Your task to perform on an android device: check data usage Image 0: 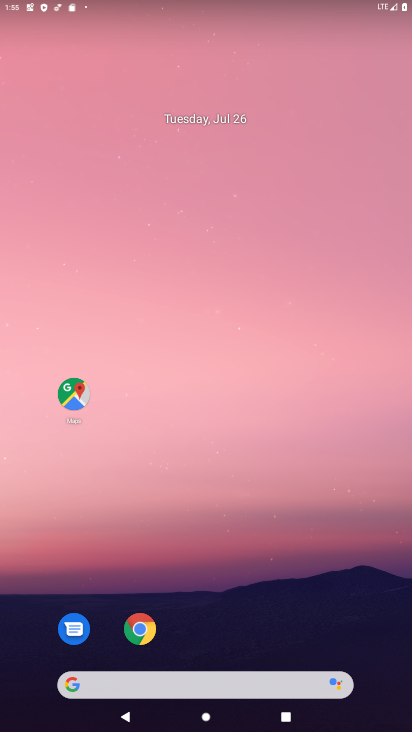
Step 0: press home button
Your task to perform on an android device: check data usage Image 1: 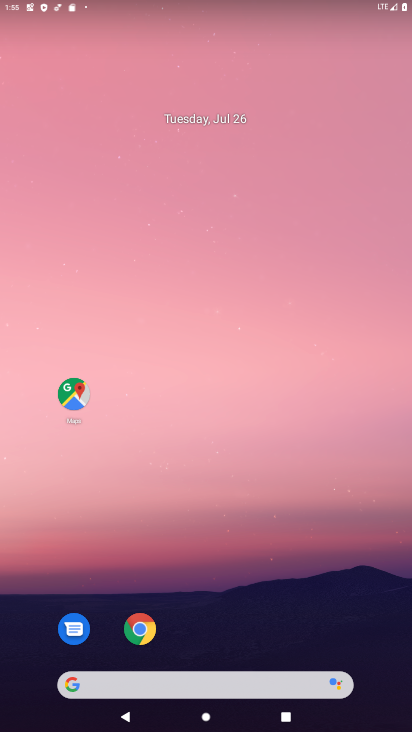
Step 1: drag from (354, 402) to (324, 87)
Your task to perform on an android device: check data usage Image 2: 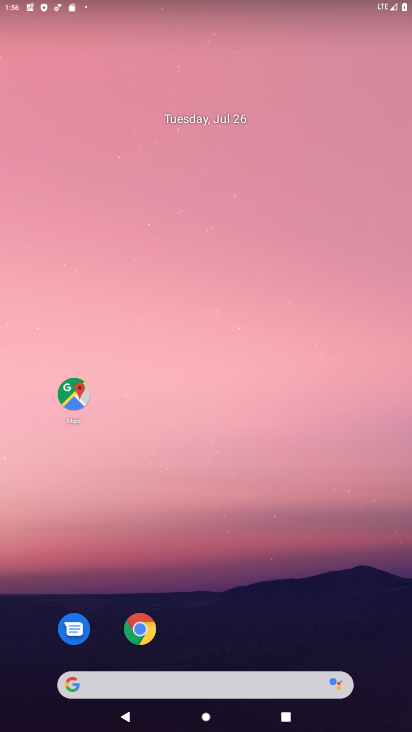
Step 2: drag from (370, 702) to (314, 88)
Your task to perform on an android device: check data usage Image 3: 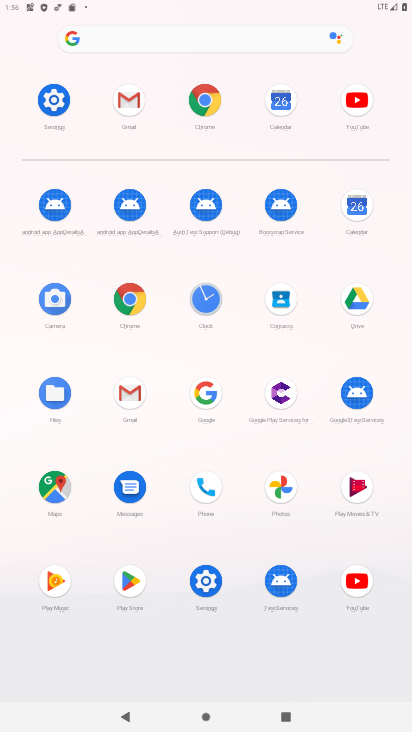
Step 3: click (66, 97)
Your task to perform on an android device: check data usage Image 4: 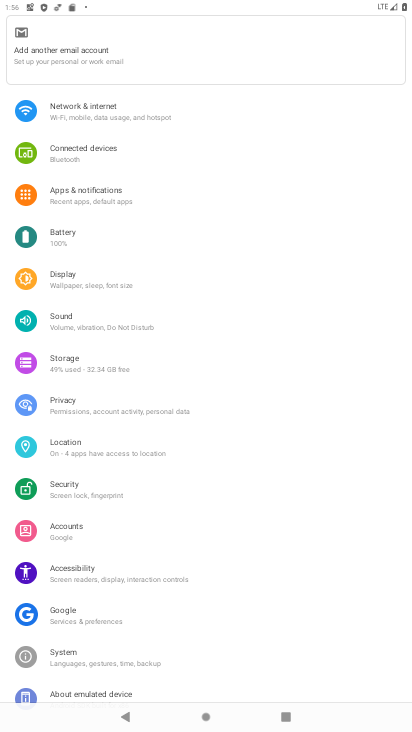
Step 4: click (83, 101)
Your task to perform on an android device: check data usage Image 5: 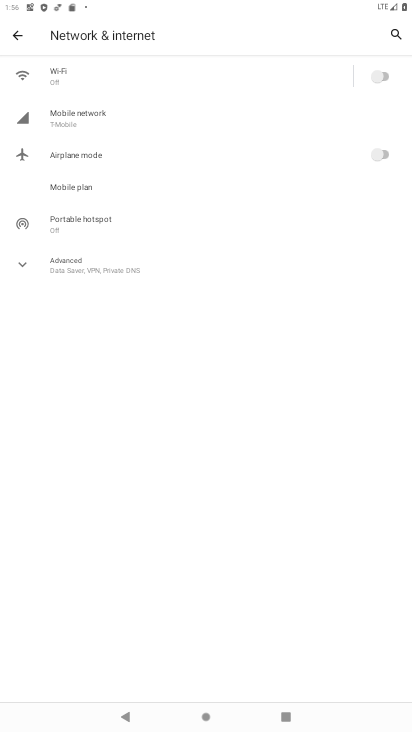
Step 5: click (65, 118)
Your task to perform on an android device: check data usage Image 6: 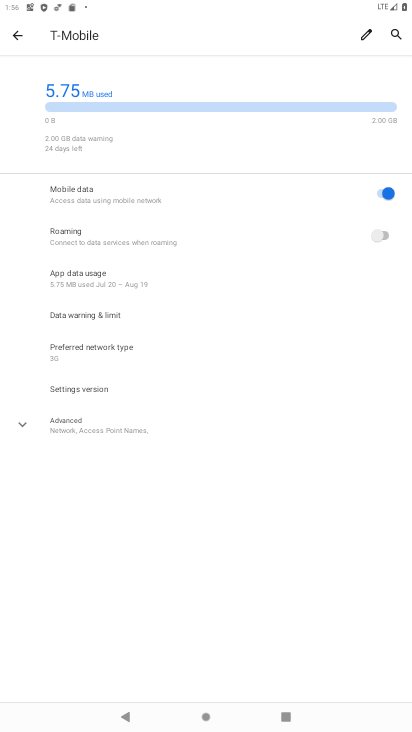
Step 6: task complete